Your task to perform on an android device: Open calendar and show me the fourth week of next month Image 0: 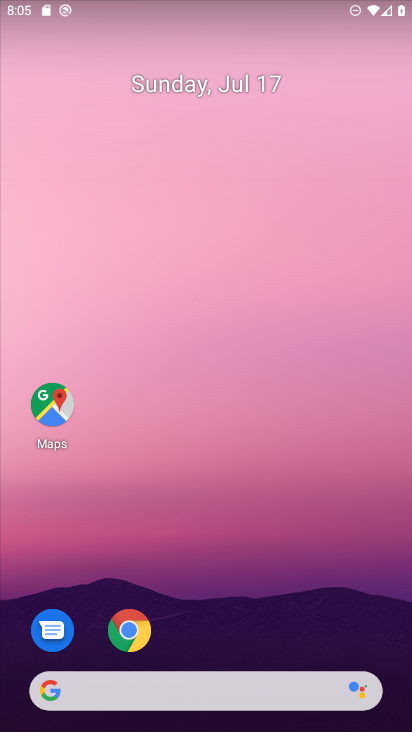
Step 0: drag from (228, 642) to (265, 134)
Your task to perform on an android device: Open calendar and show me the fourth week of next month Image 1: 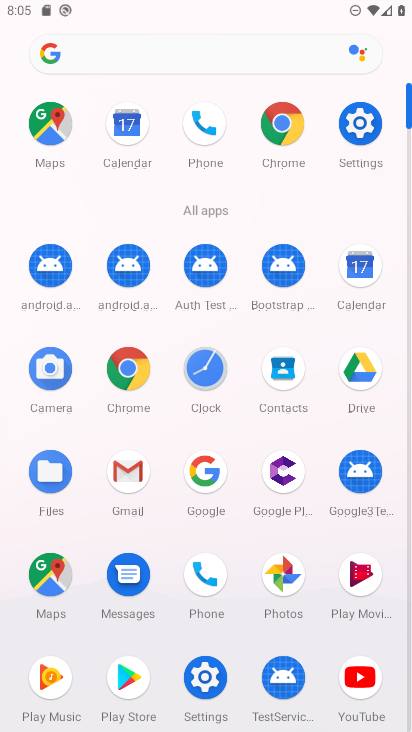
Step 1: click (116, 121)
Your task to perform on an android device: Open calendar and show me the fourth week of next month Image 2: 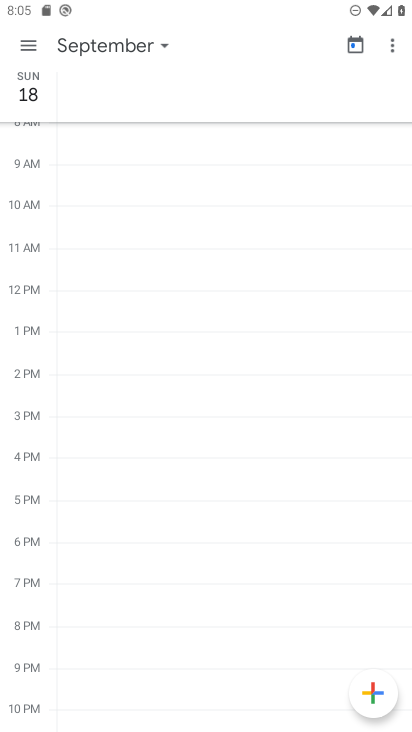
Step 2: click (36, 41)
Your task to perform on an android device: Open calendar and show me the fourth week of next month Image 3: 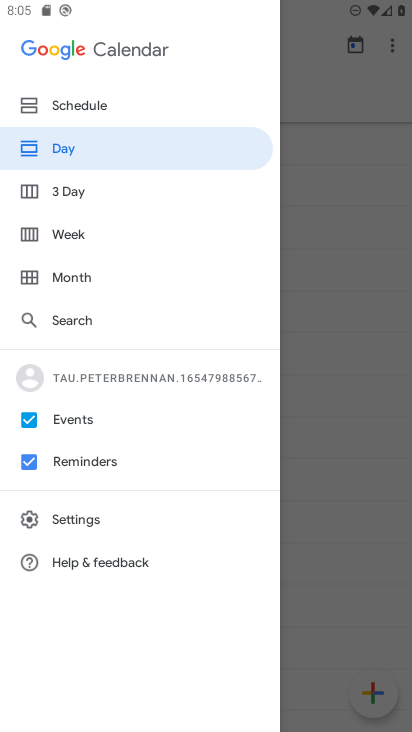
Step 3: click (78, 269)
Your task to perform on an android device: Open calendar and show me the fourth week of next month Image 4: 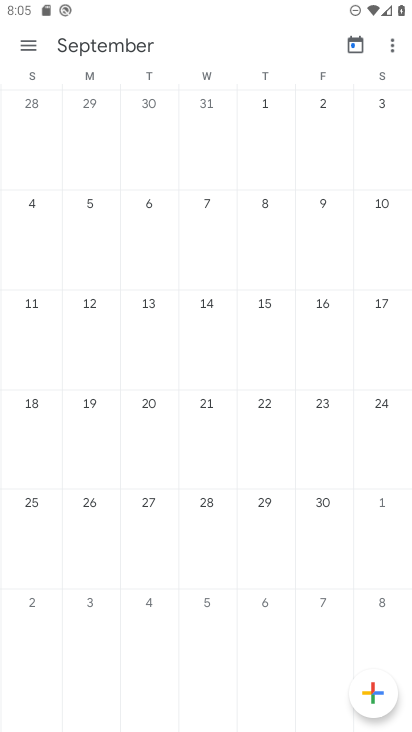
Step 4: drag from (7, 326) to (367, 362)
Your task to perform on an android device: Open calendar and show me the fourth week of next month Image 5: 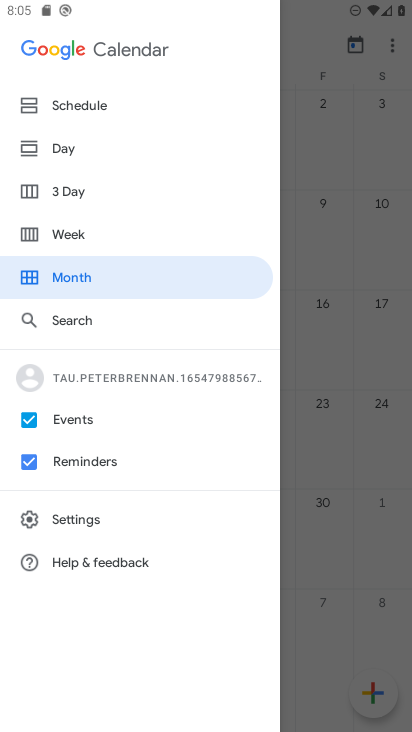
Step 5: click (303, 289)
Your task to perform on an android device: Open calendar and show me the fourth week of next month Image 6: 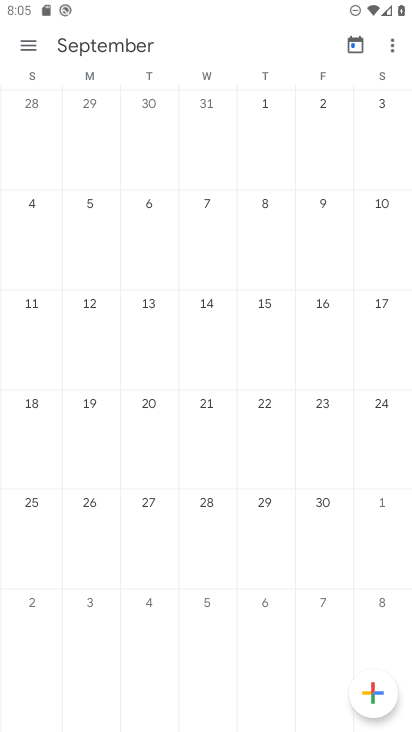
Step 6: task complete